Your task to perform on an android device: Go to Android settings Image 0: 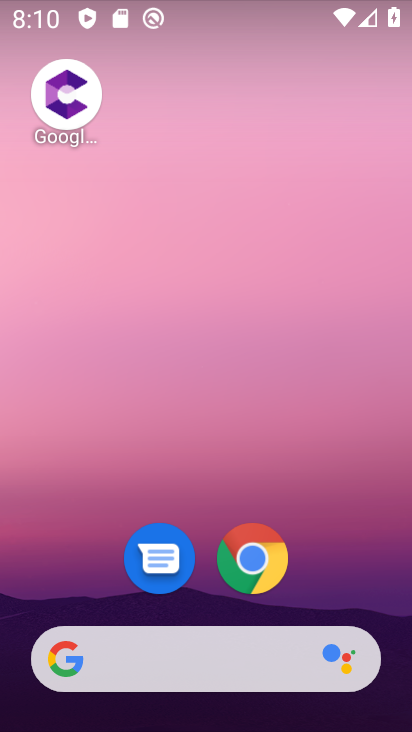
Step 0: drag from (213, 613) to (205, 171)
Your task to perform on an android device: Go to Android settings Image 1: 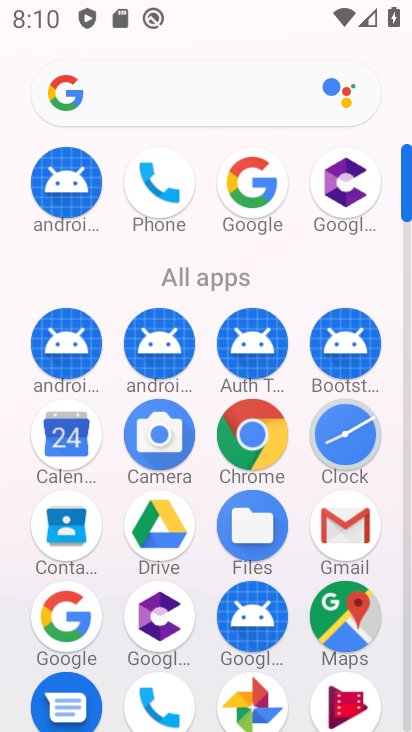
Step 1: drag from (200, 544) to (210, 264)
Your task to perform on an android device: Go to Android settings Image 2: 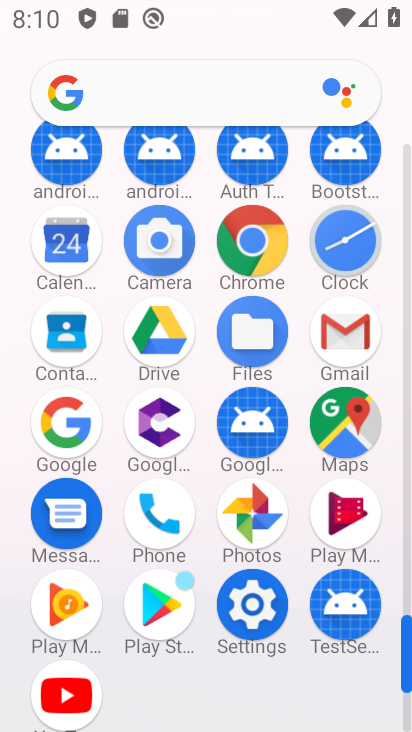
Step 2: click (240, 592)
Your task to perform on an android device: Go to Android settings Image 3: 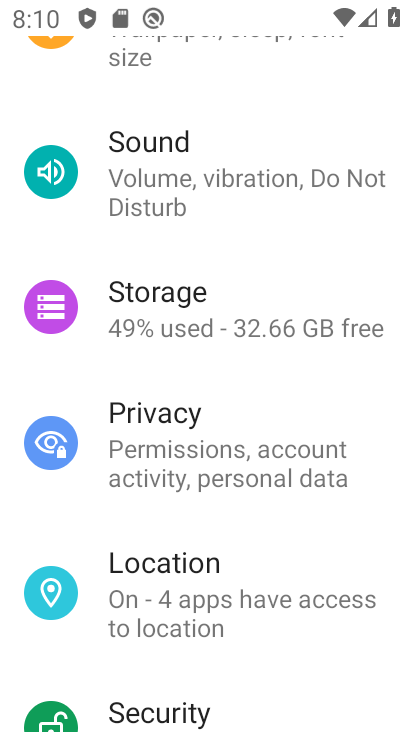
Step 3: task complete